Your task to perform on an android device: Clear the shopping cart on ebay. Image 0: 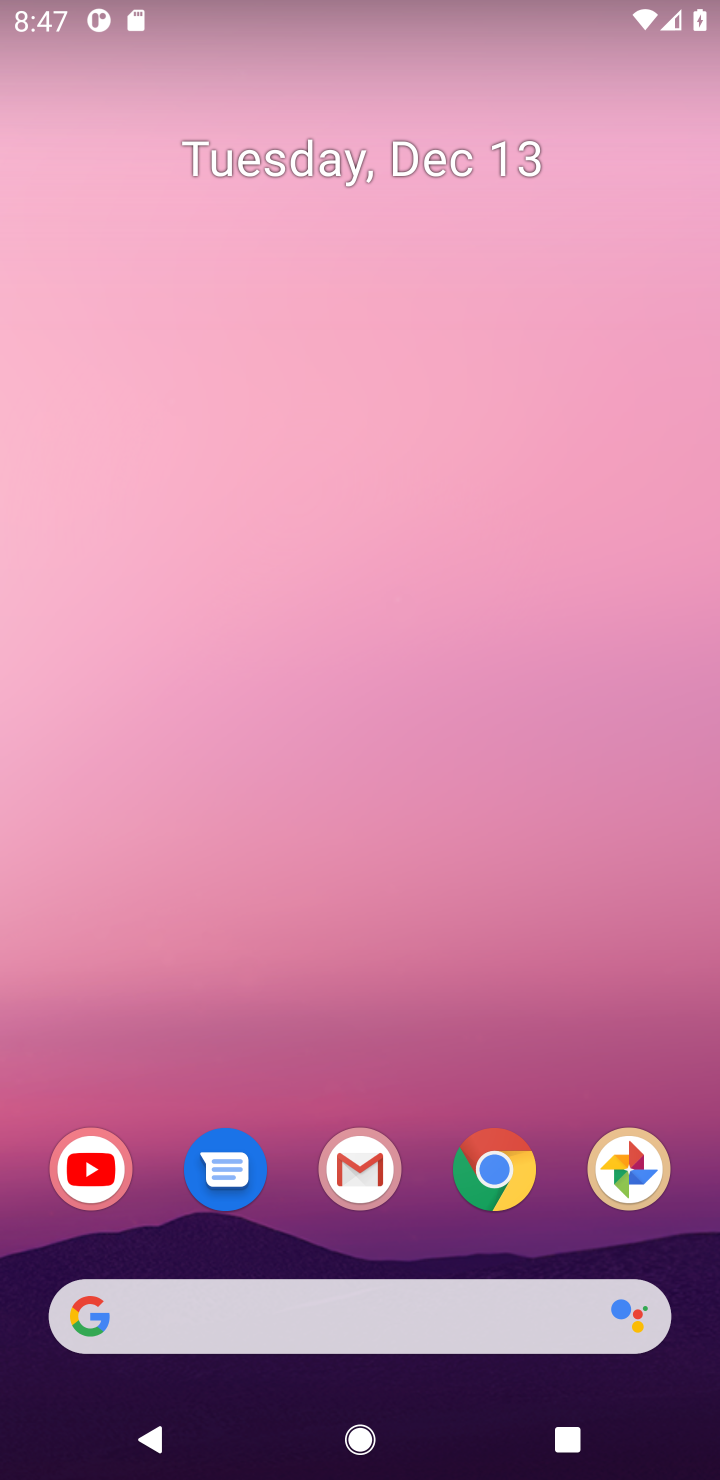
Step 0: click (475, 1197)
Your task to perform on an android device: Clear the shopping cart on ebay. Image 1: 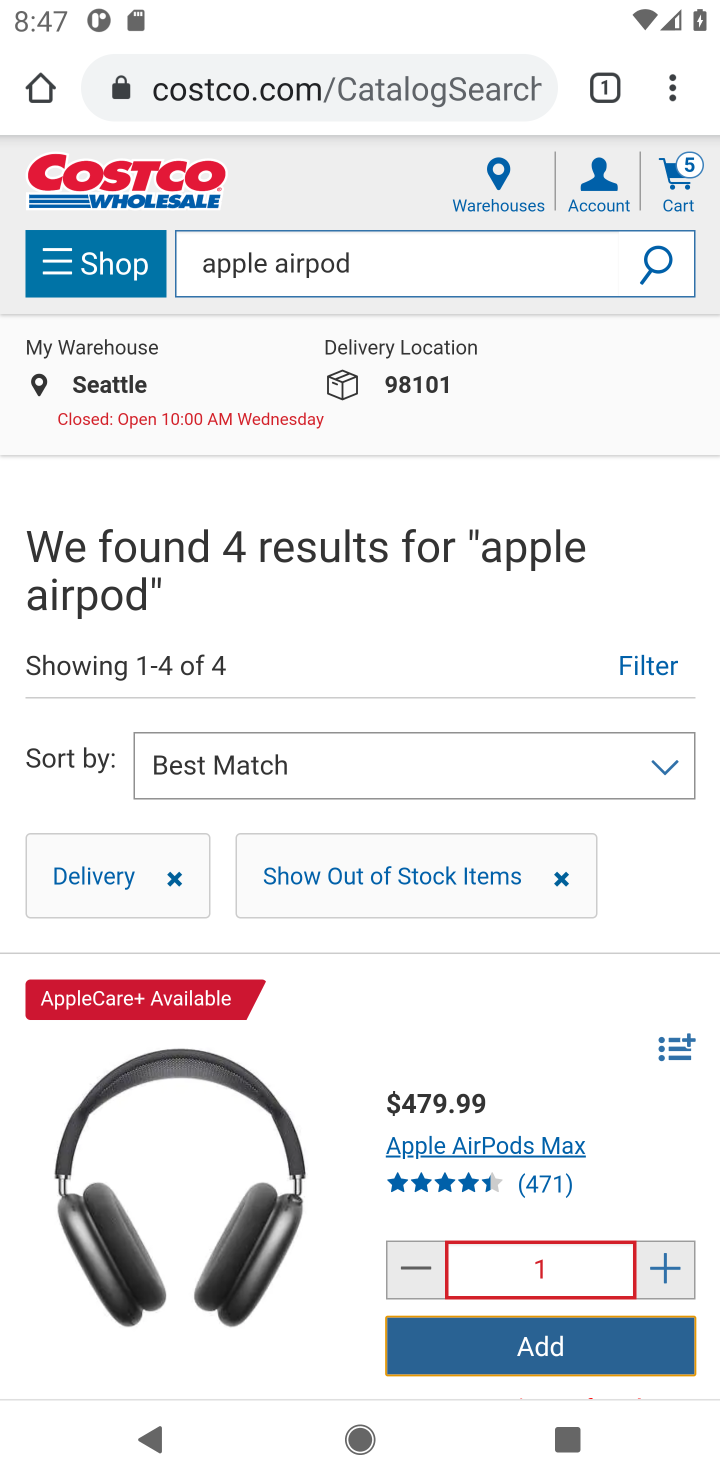
Step 1: click (403, 71)
Your task to perform on an android device: Clear the shopping cart on ebay. Image 2: 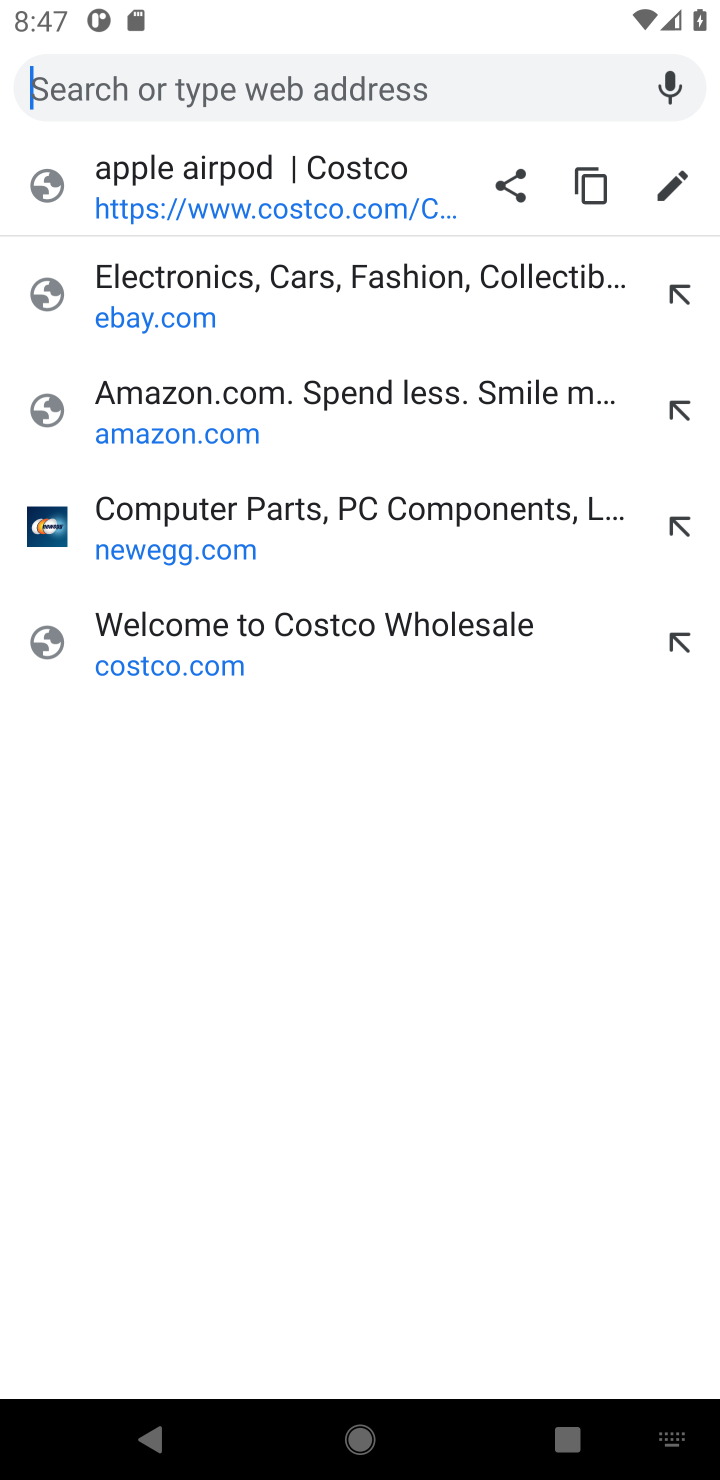
Step 2: type "ebay.com"
Your task to perform on an android device: Clear the shopping cart on ebay. Image 3: 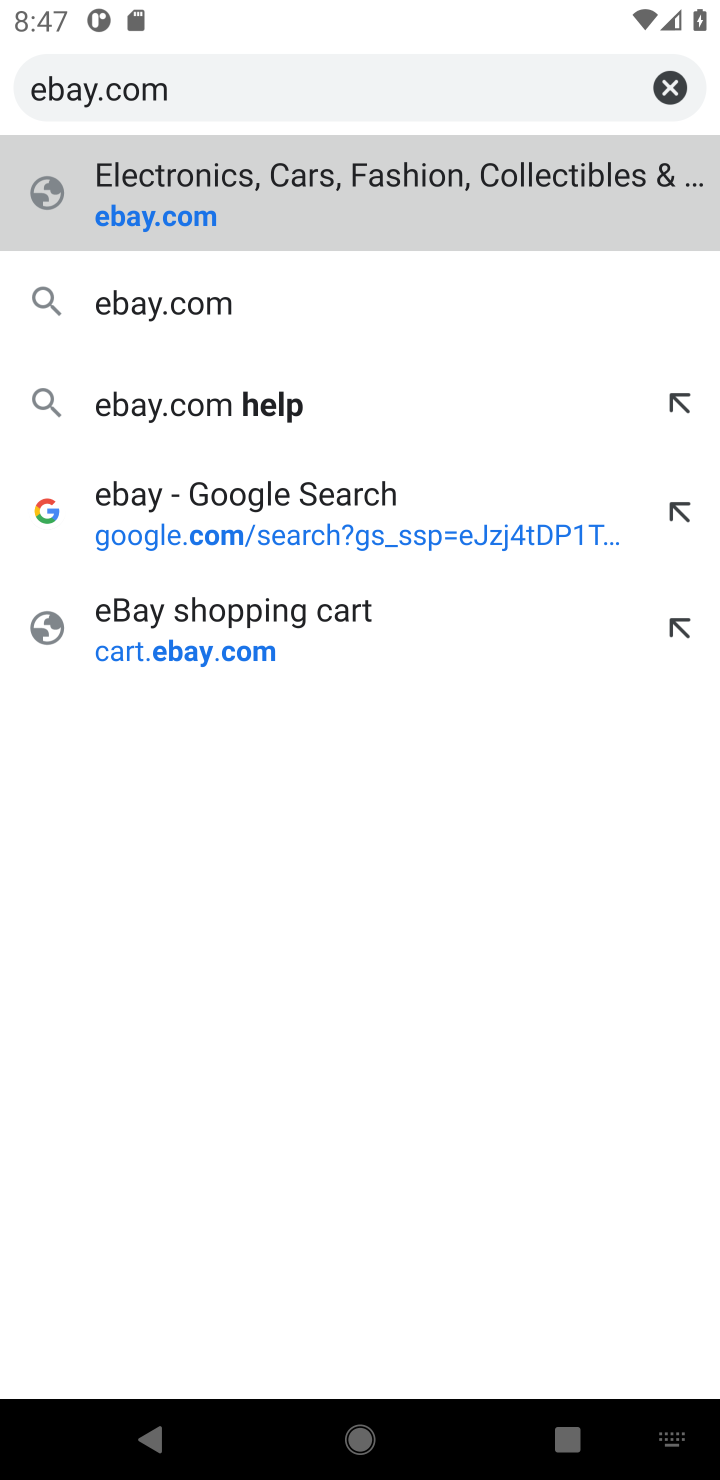
Step 3: click (238, 167)
Your task to perform on an android device: Clear the shopping cart on ebay. Image 4: 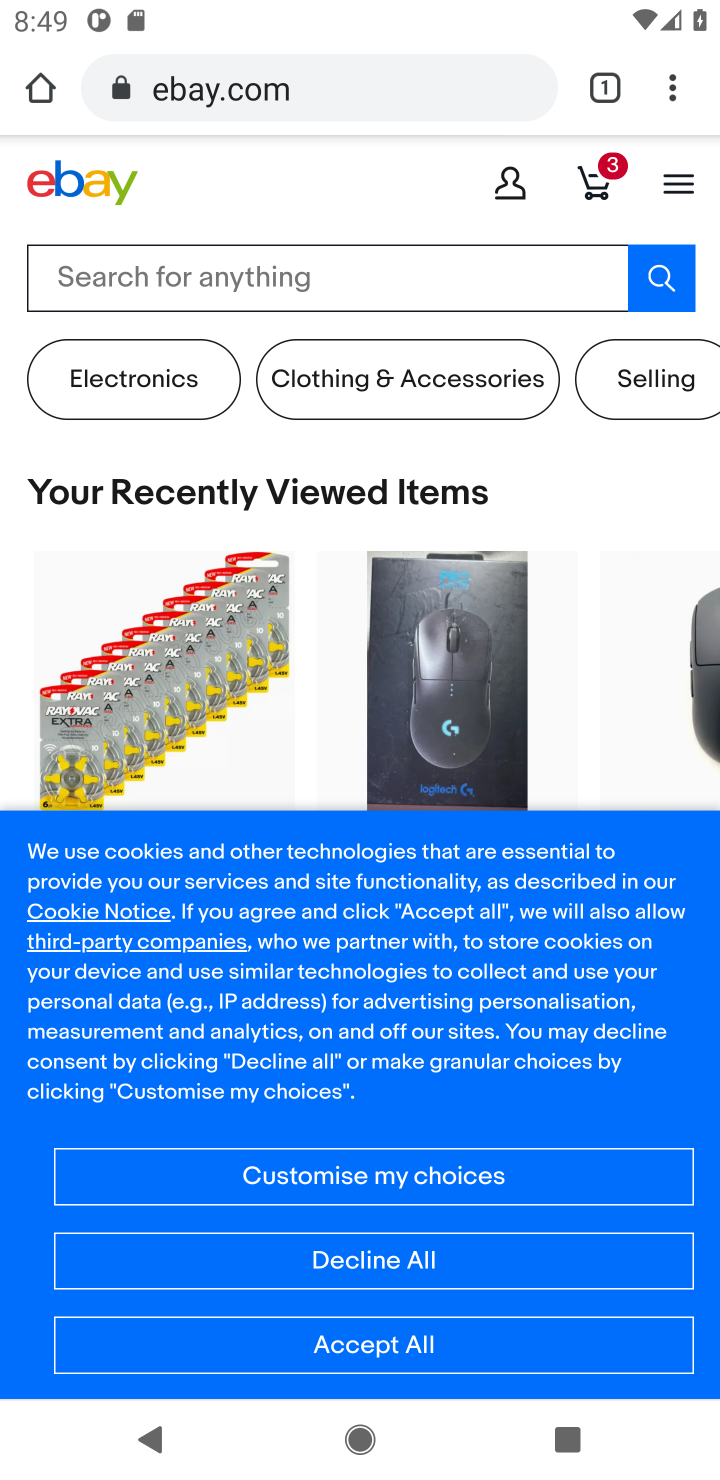
Step 4: click (611, 187)
Your task to perform on an android device: Clear the shopping cart on ebay. Image 5: 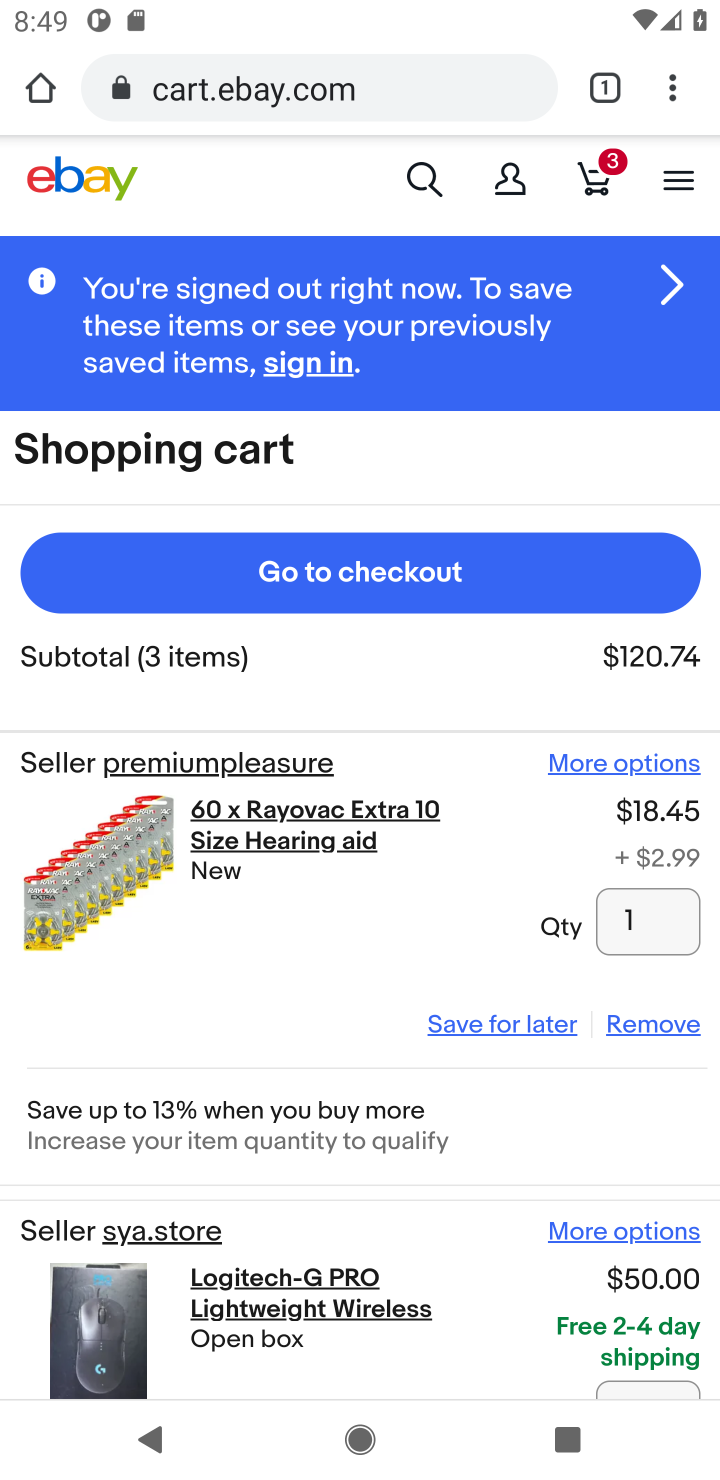
Step 5: click (612, 1033)
Your task to perform on an android device: Clear the shopping cart on ebay. Image 6: 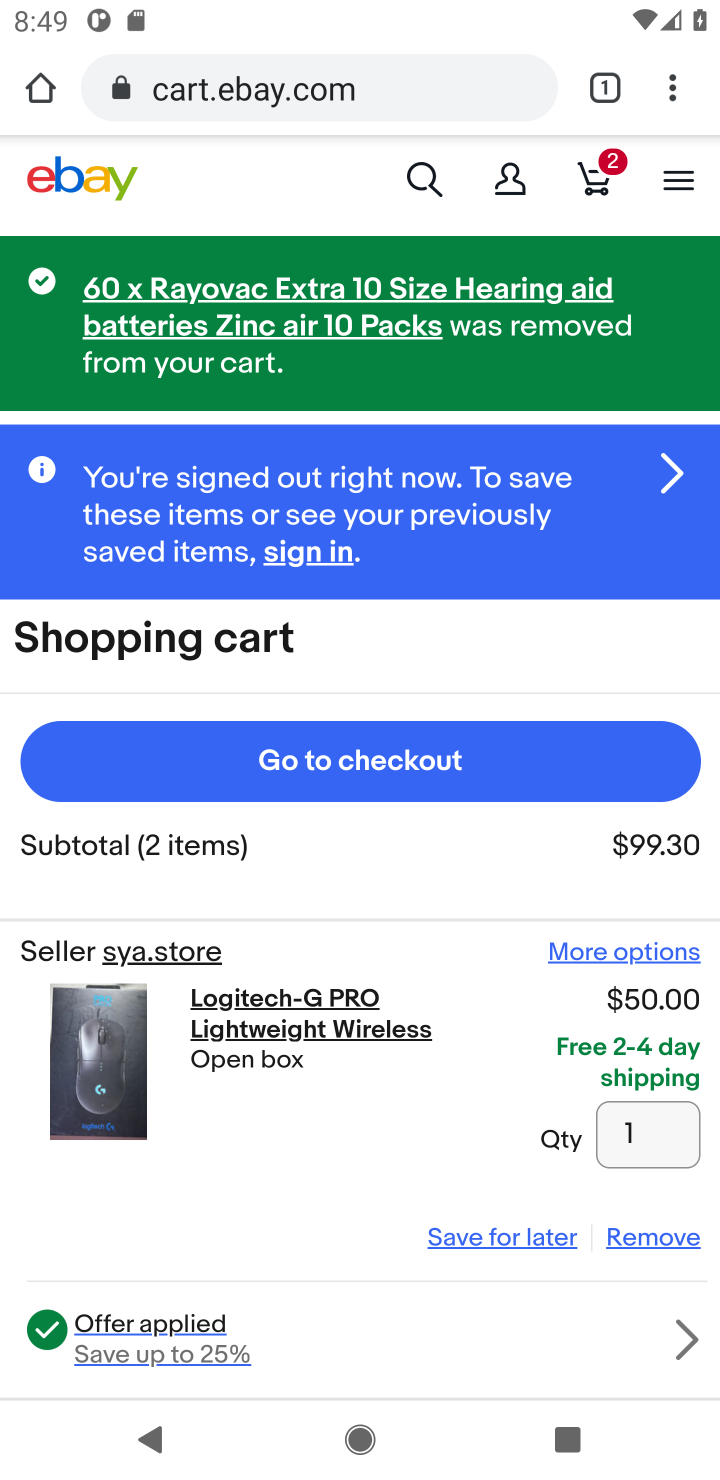
Step 6: click (626, 1237)
Your task to perform on an android device: Clear the shopping cart on ebay. Image 7: 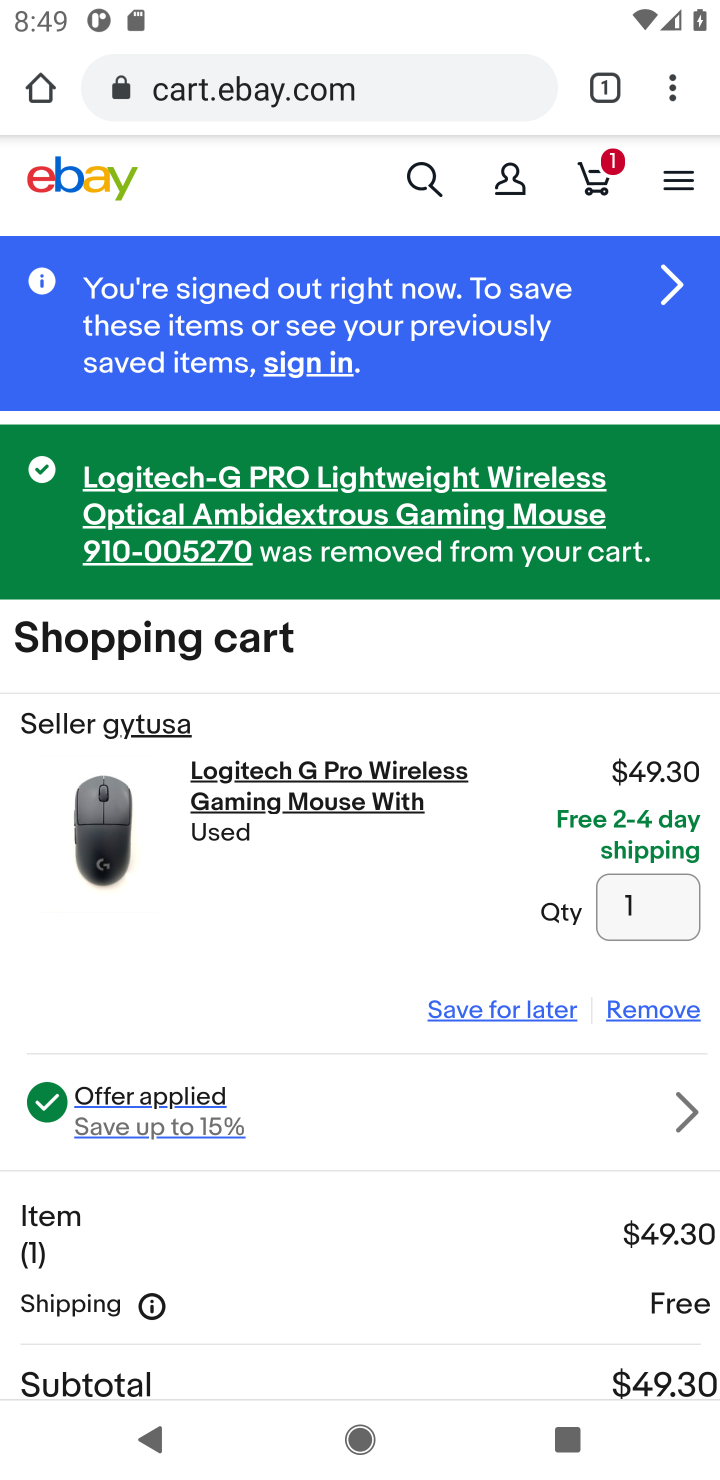
Step 7: click (626, 1005)
Your task to perform on an android device: Clear the shopping cart on ebay. Image 8: 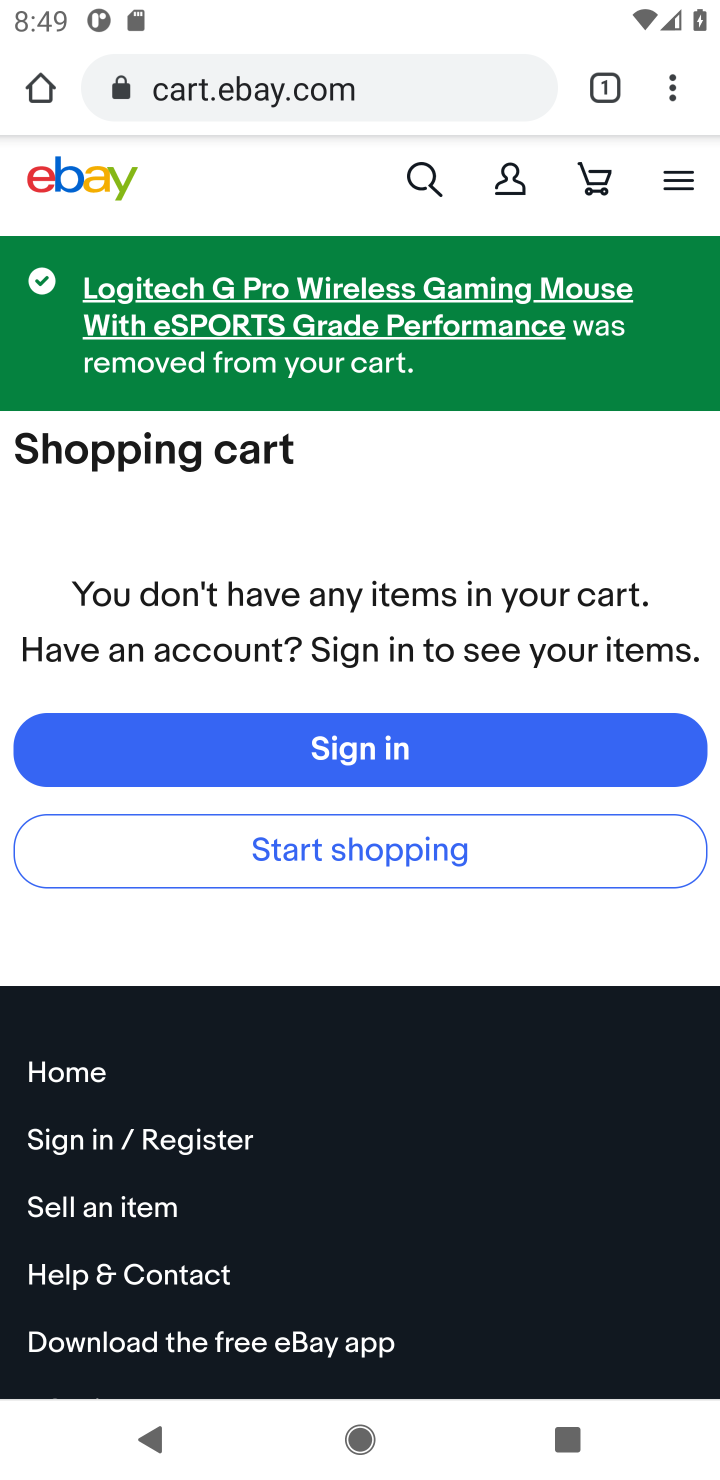
Step 8: task complete